Your task to perform on an android device: check data usage Image 0: 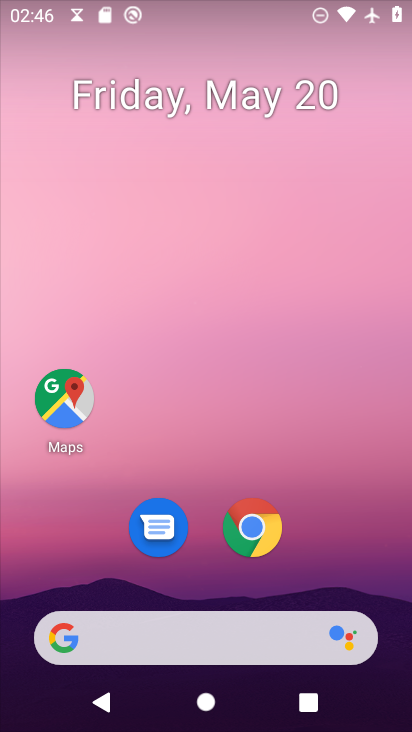
Step 0: press home button
Your task to perform on an android device: check data usage Image 1: 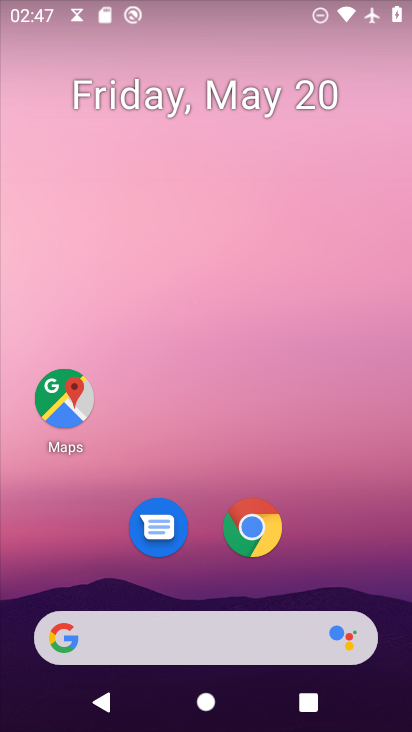
Step 1: drag from (163, 613) to (282, 164)
Your task to perform on an android device: check data usage Image 2: 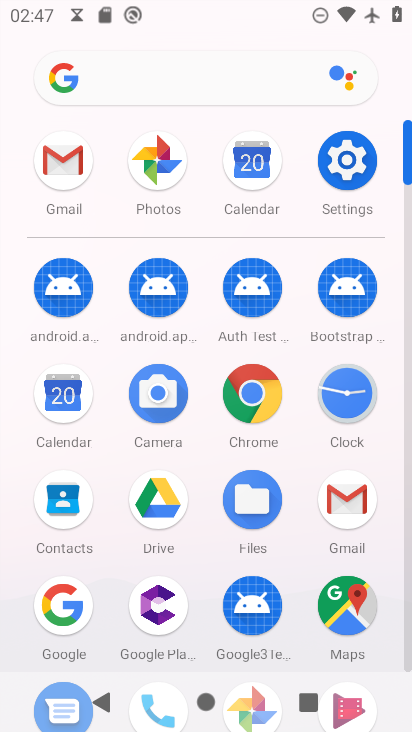
Step 2: click (339, 156)
Your task to perform on an android device: check data usage Image 3: 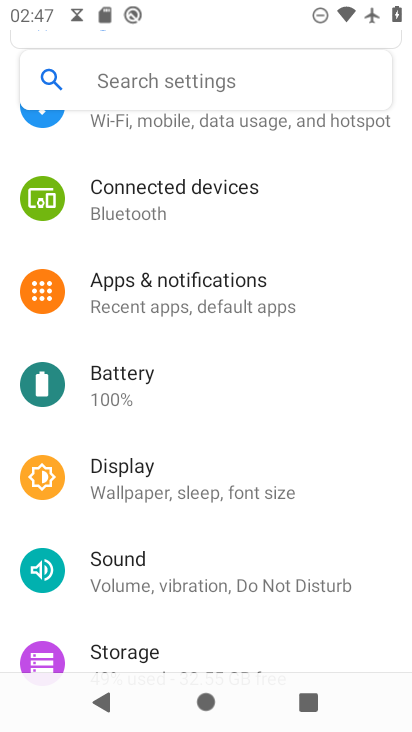
Step 3: drag from (317, 171) to (249, 592)
Your task to perform on an android device: check data usage Image 4: 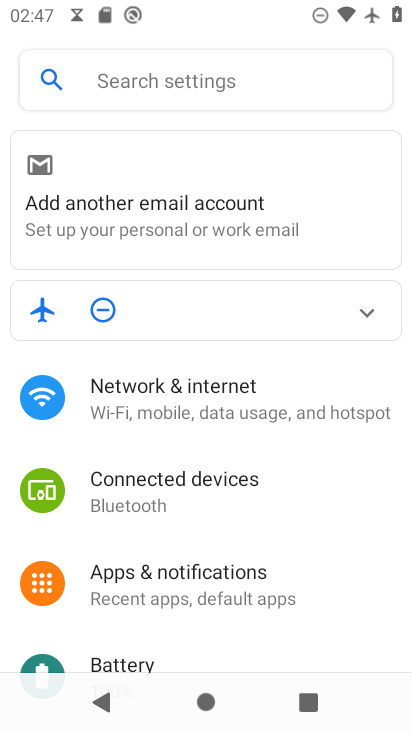
Step 4: click (184, 388)
Your task to perform on an android device: check data usage Image 5: 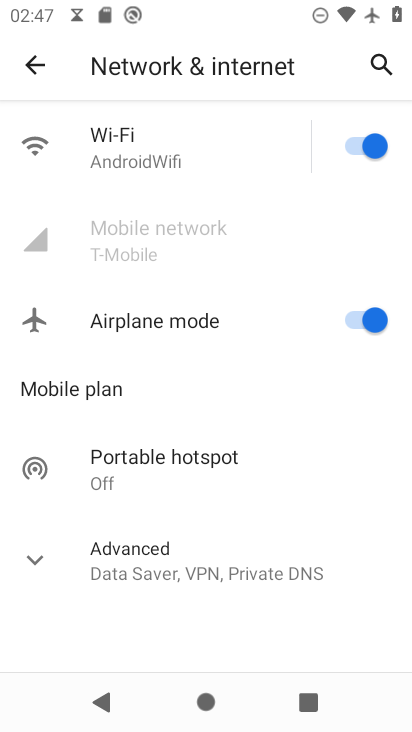
Step 5: click (131, 157)
Your task to perform on an android device: check data usage Image 6: 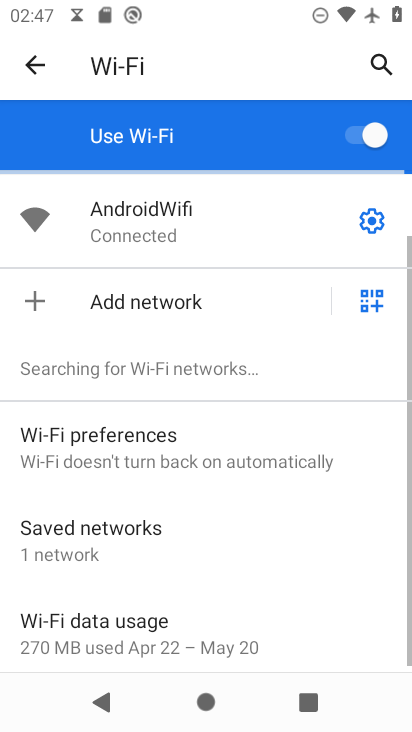
Step 6: drag from (218, 575) to (293, 214)
Your task to perform on an android device: check data usage Image 7: 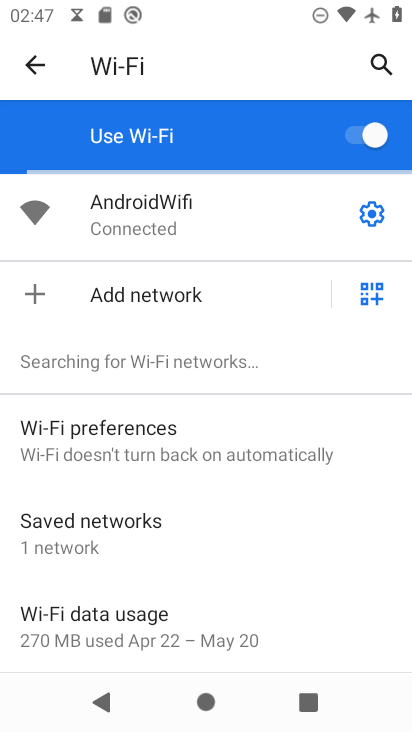
Step 7: click (146, 623)
Your task to perform on an android device: check data usage Image 8: 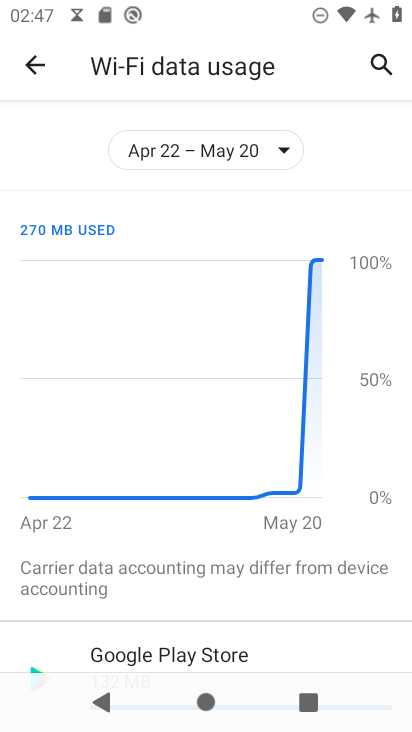
Step 8: task complete